Your task to perform on an android device: Open Google Maps and go to "Timeline" Image 0: 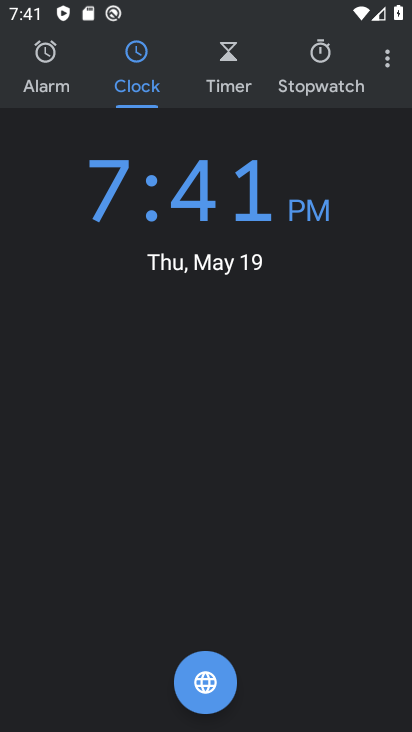
Step 0: press home button
Your task to perform on an android device: Open Google Maps and go to "Timeline" Image 1: 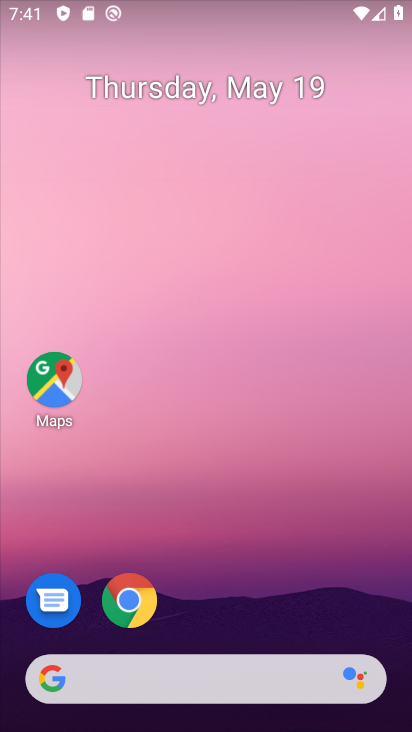
Step 1: click (58, 382)
Your task to perform on an android device: Open Google Maps and go to "Timeline" Image 2: 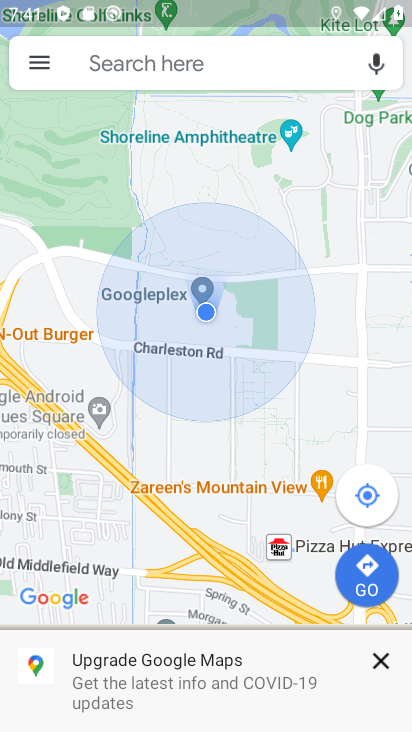
Step 2: click (45, 67)
Your task to perform on an android device: Open Google Maps and go to "Timeline" Image 3: 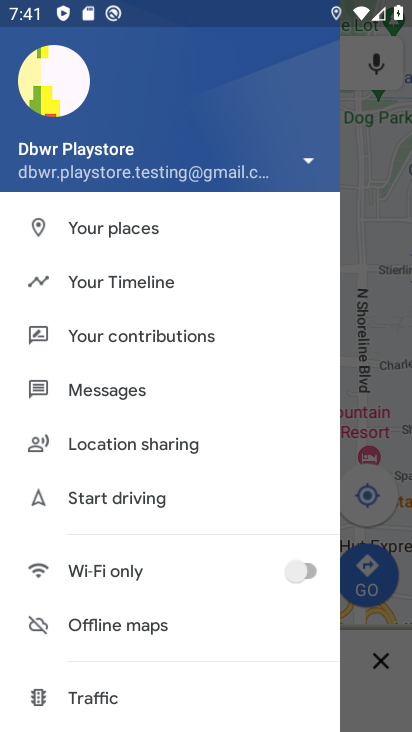
Step 3: click (82, 283)
Your task to perform on an android device: Open Google Maps and go to "Timeline" Image 4: 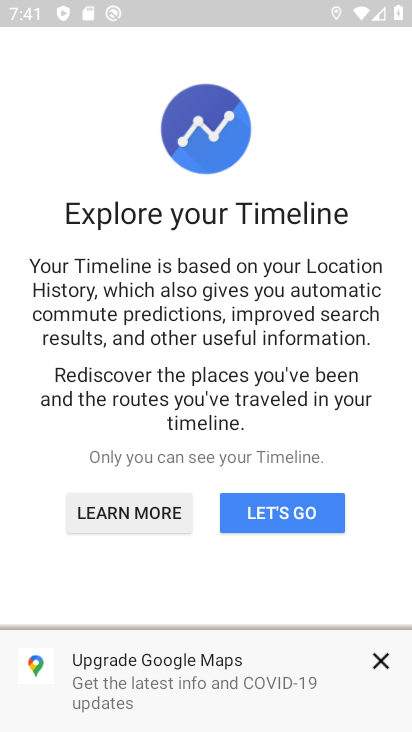
Step 4: click (277, 513)
Your task to perform on an android device: Open Google Maps and go to "Timeline" Image 5: 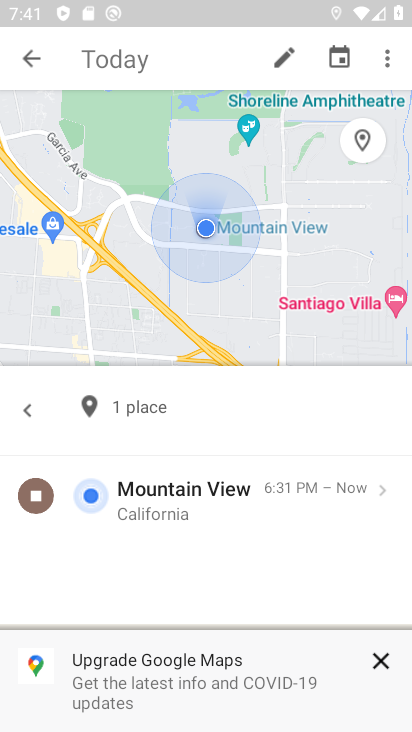
Step 5: task complete